Your task to perform on an android device: turn pop-ups on in chrome Image 0: 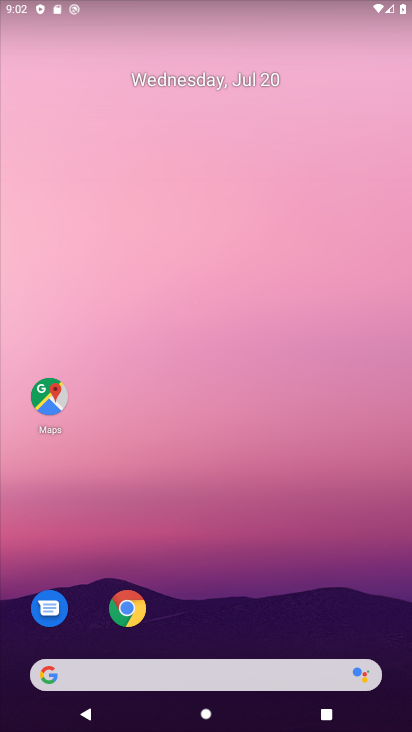
Step 0: click (131, 605)
Your task to perform on an android device: turn pop-ups on in chrome Image 1: 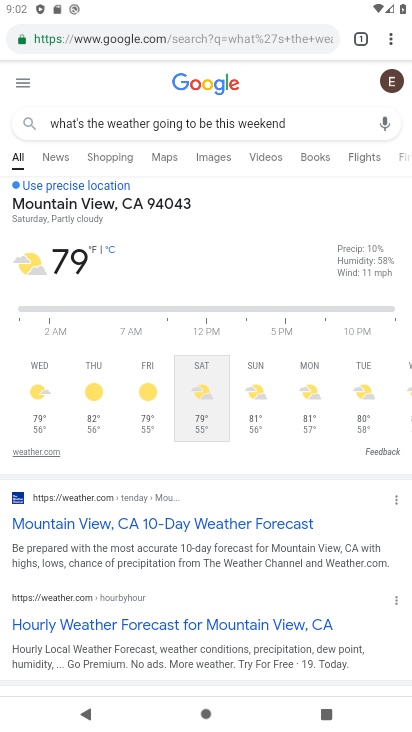
Step 1: click (392, 35)
Your task to perform on an android device: turn pop-ups on in chrome Image 2: 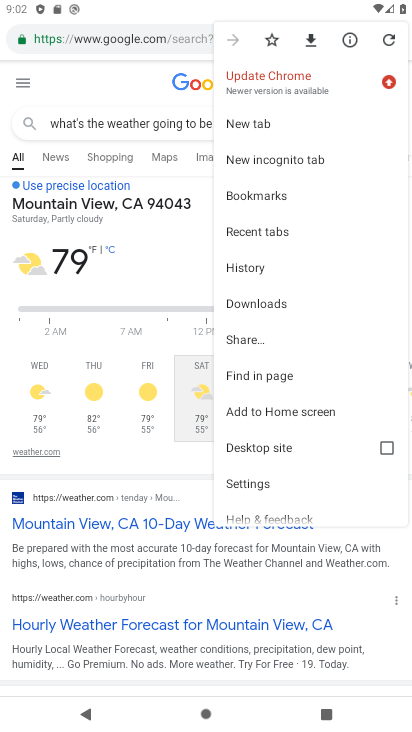
Step 2: click (262, 476)
Your task to perform on an android device: turn pop-ups on in chrome Image 3: 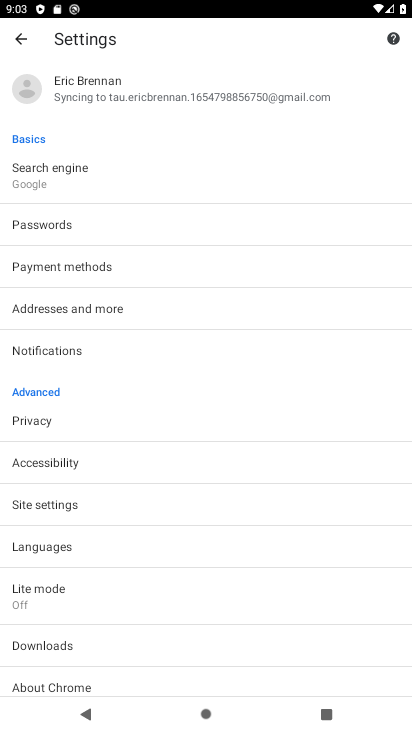
Step 3: drag from (198, 638) to (186, 393)
Your task to perform on an android device: turn pop-ups on in chrome Image 4: 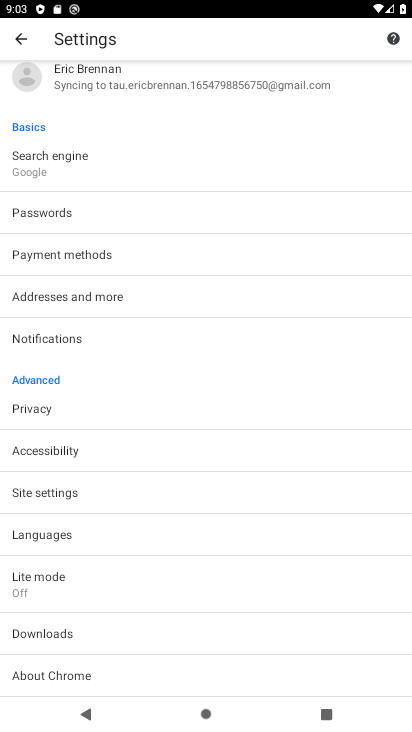
Step 4: click (180, 489)
Your task to perform on an android device: turn pop-ups on in chrome Image 5: 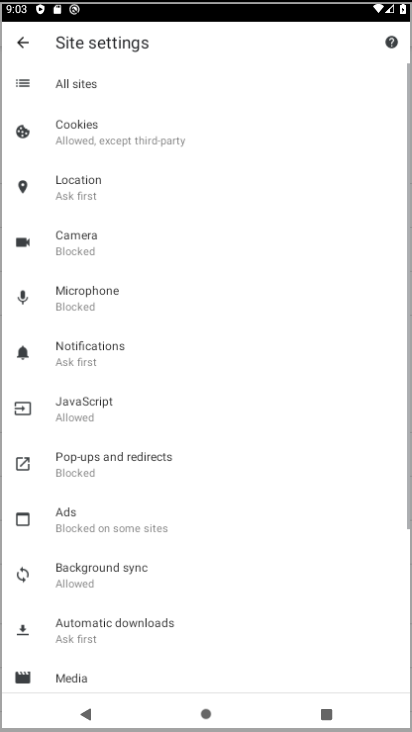
Step 5: click (89, 492)
Your task to perform on an android device: turn pop-ups on in chrome Image 6: 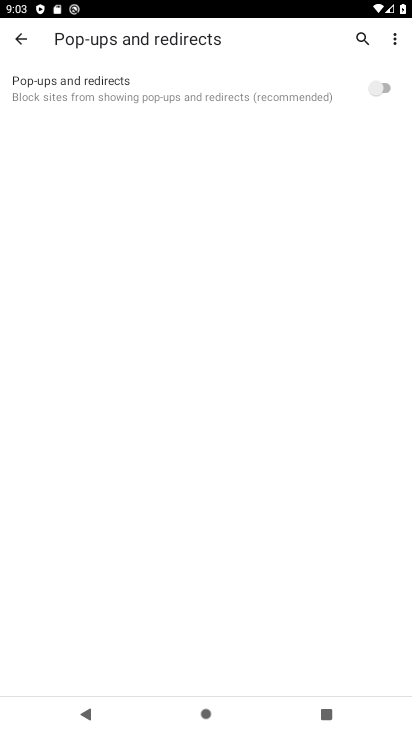
Step 6: click (381, 93)
Your task to perform on an android device: turn pop-ups on in chrome Image 7: 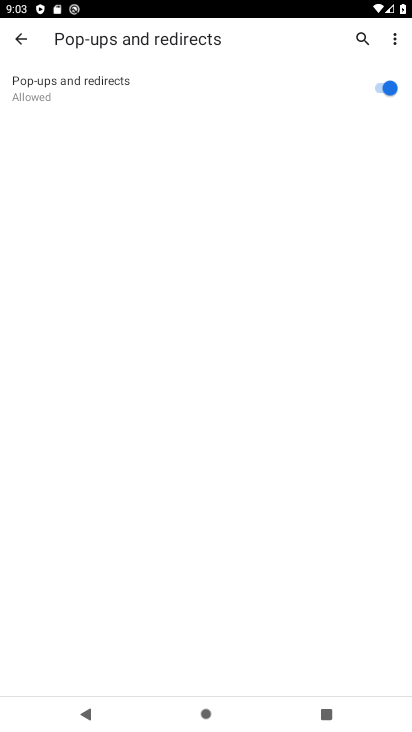
Step 7: task complete